Your task to perform on an android device: Search for the best selling phone on AliExpress Image 0: 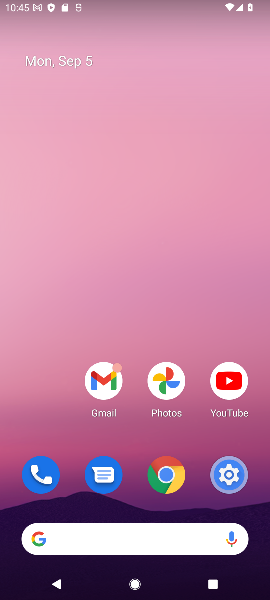
Step 0: click (120, 532)
Your task to perform on an android device: Search for the best selling phone on AliExpress Image 1: 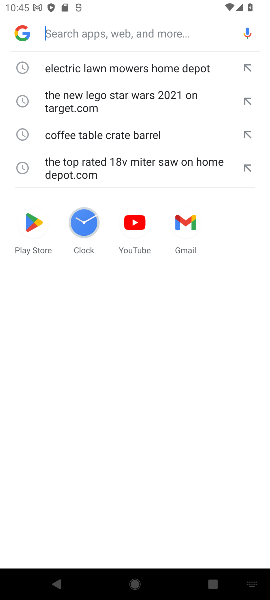
Step 1: click (139, 26)
Your task to perform on an android device: Search for the best selling phone on AliExpress Image 2: 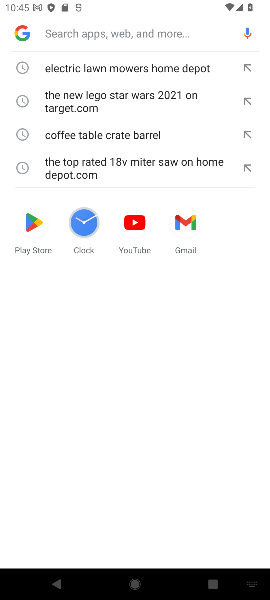
Step 2: type "the best selling phone on AliExpress"
Your task to perform on an android device: Search for the best selling phone on AliExpress Image 3: 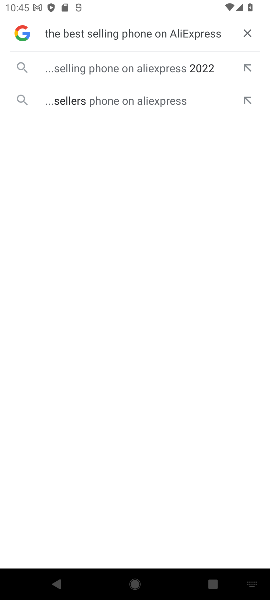
Step 3: click (112, 96)
Your task to perform on an android device: Search for the best selling phone on AliExpress Image 4: 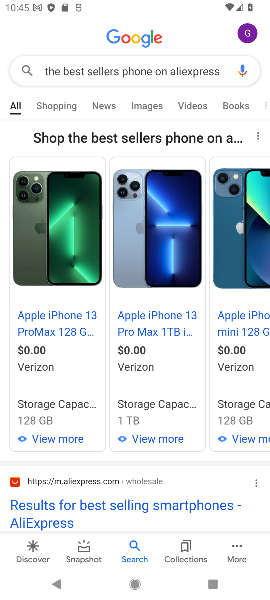
Step 4: task complete